Your task to perform on an android device: Go to sound settings Image 0: 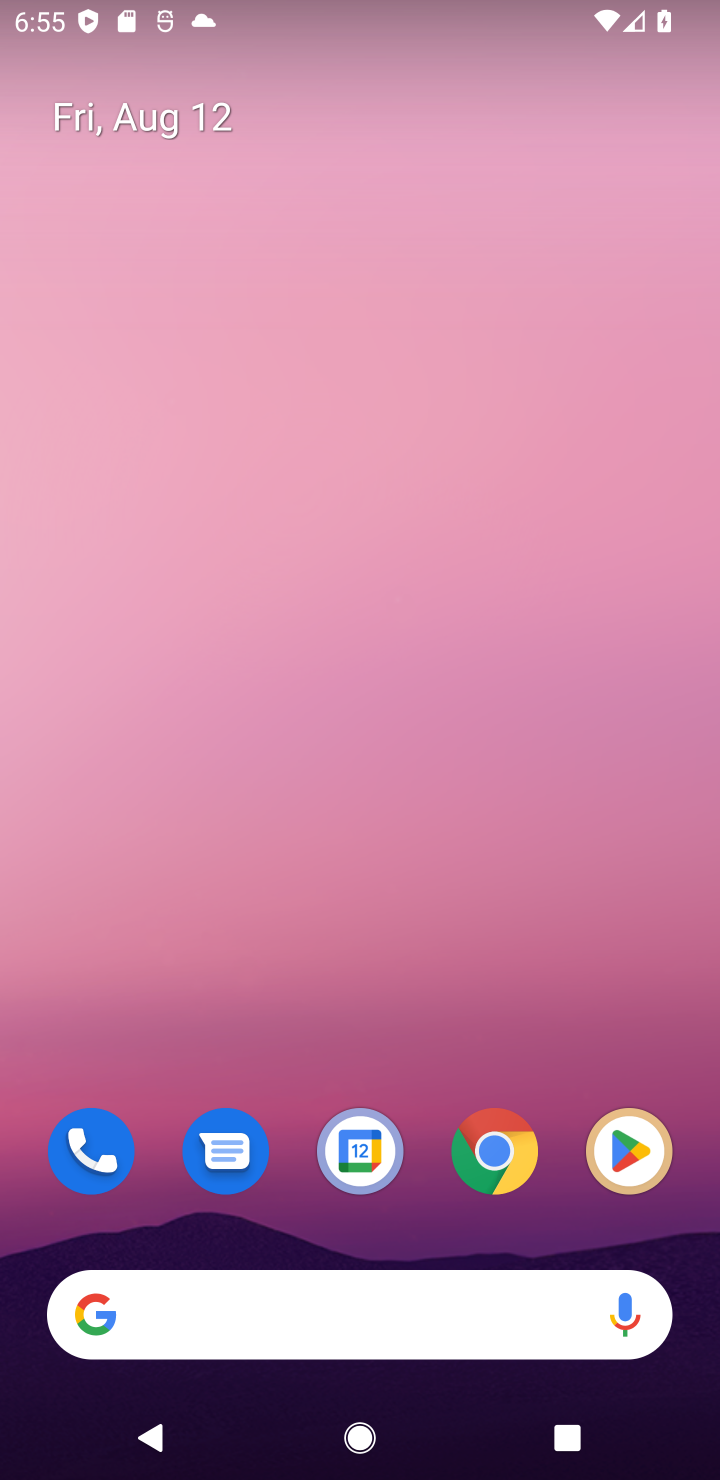
Step 0: drag from (424, 1082) to (531, 46)
Your task to perform on an android device: Go to sound settings Image 1: 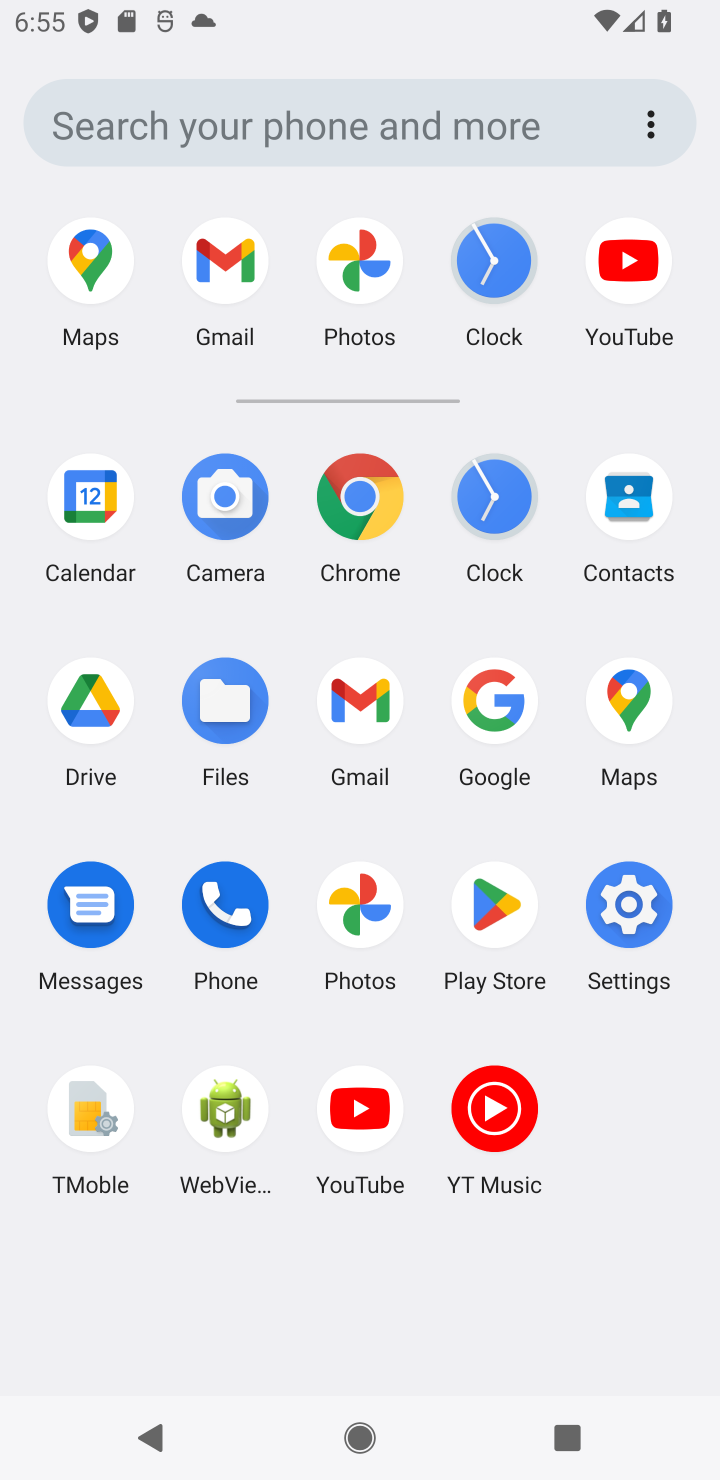
Step 1: click (653, 910)
Your task to perform on an android device: Go to sound settings Image 2: 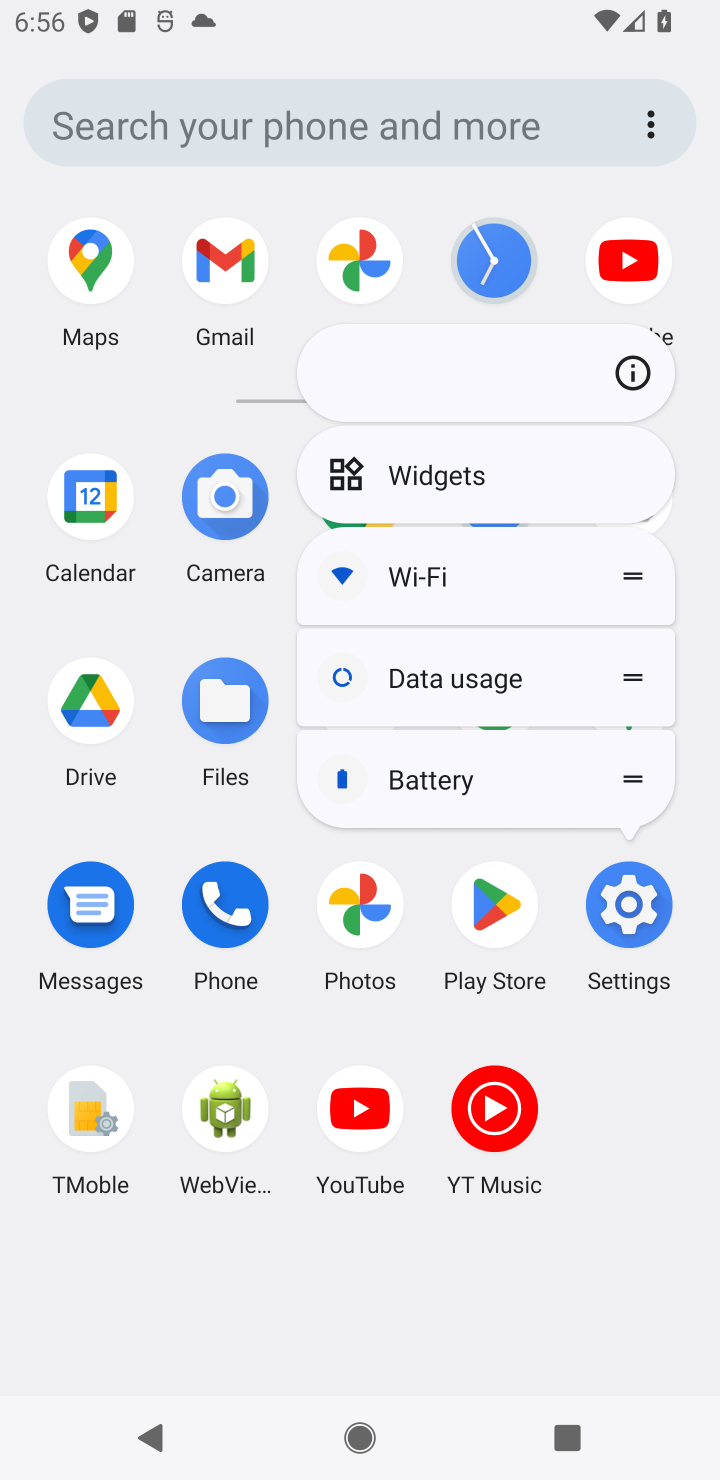
Step 2: click (639, 899)
Your task to perform on an android device: Go to sound settings Image 3: 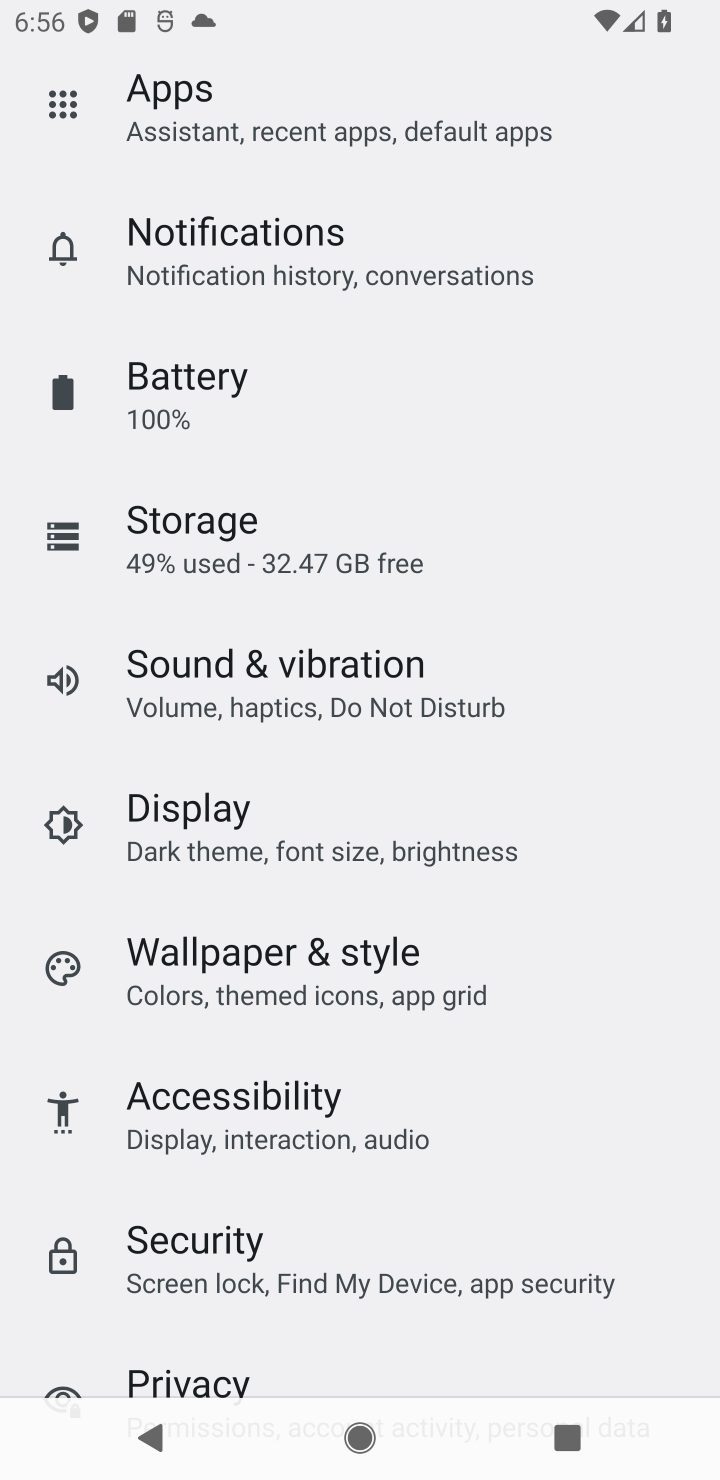
Step 3: click (338, 679)
Your task to perform on an android device: Go to sound settings Image 4: 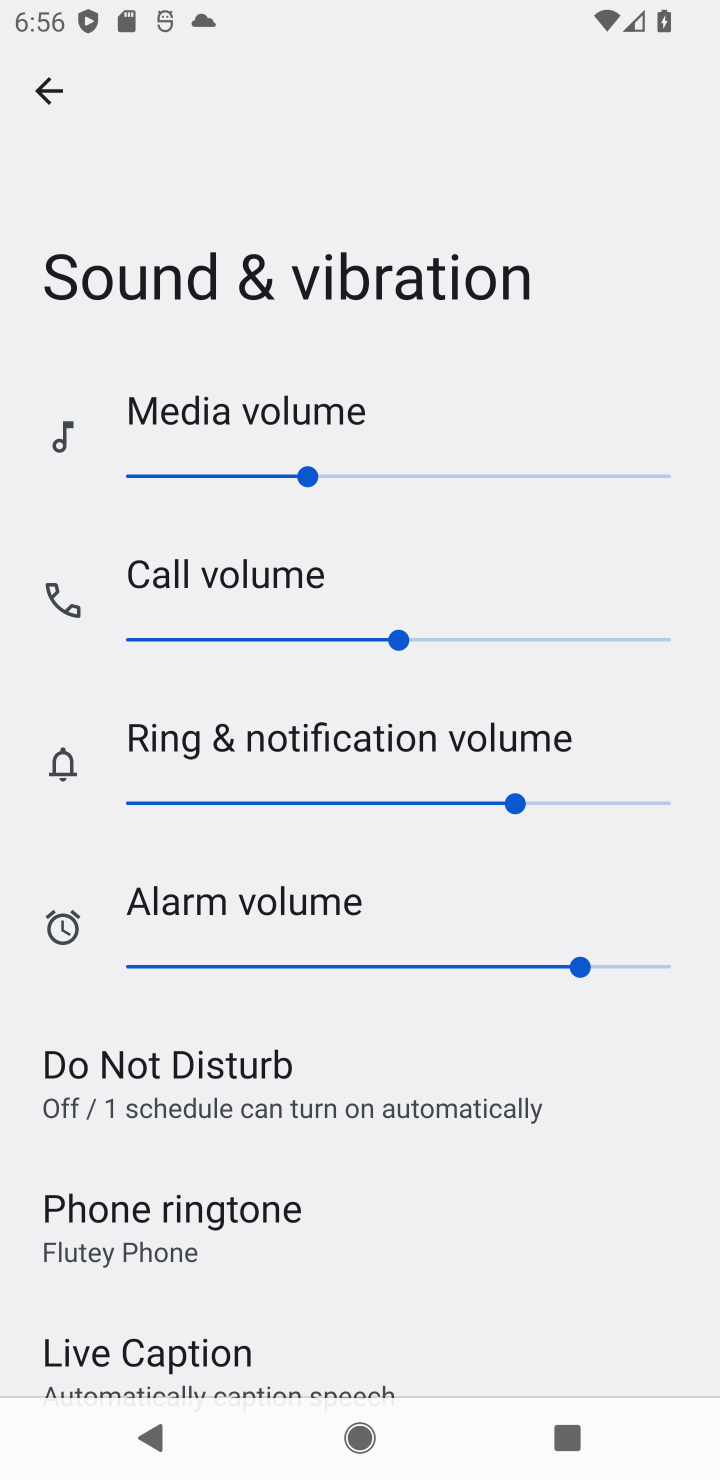
Step 4: task complete